Your task to perform on an android device: Add usb-a to usb-b to the cart on amazon, then select checkout. Image 0: 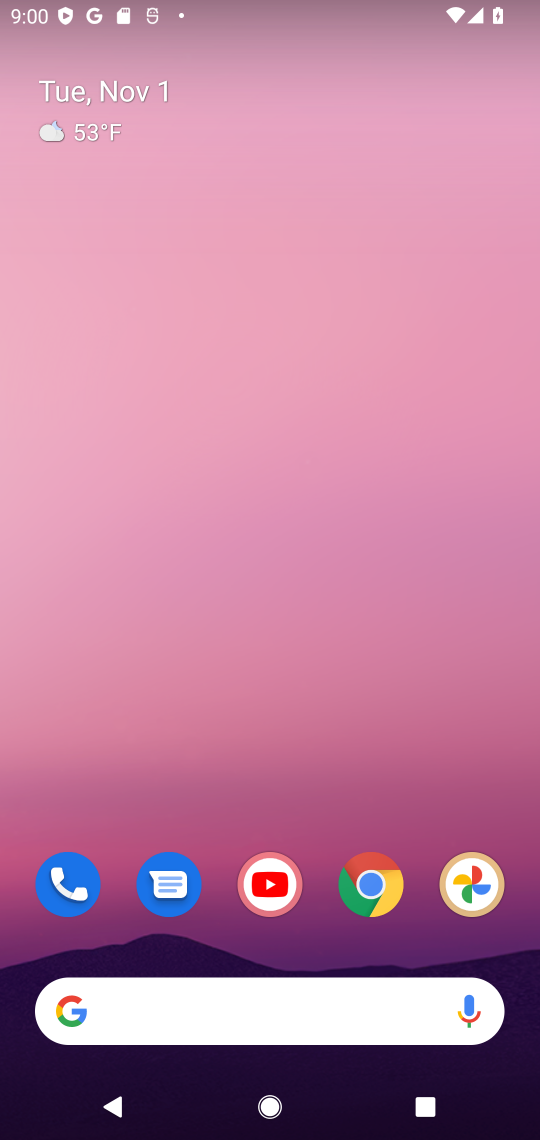
Step 0: click (359, 902)
Your task to perform on an android device: Add usb-a to usb-b to the cart on amazon, then select checkout. Image 1: 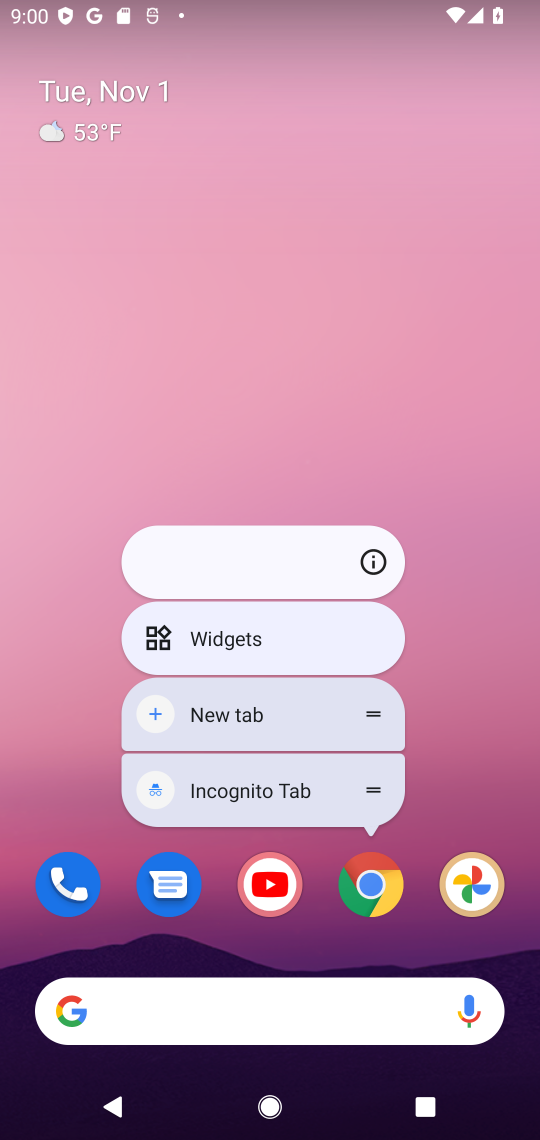
Step 1: click (381, 889)
Your task to perform on an android device: Add usb-a to usb-b to the cart on amazon, then select checkout. Image 2: 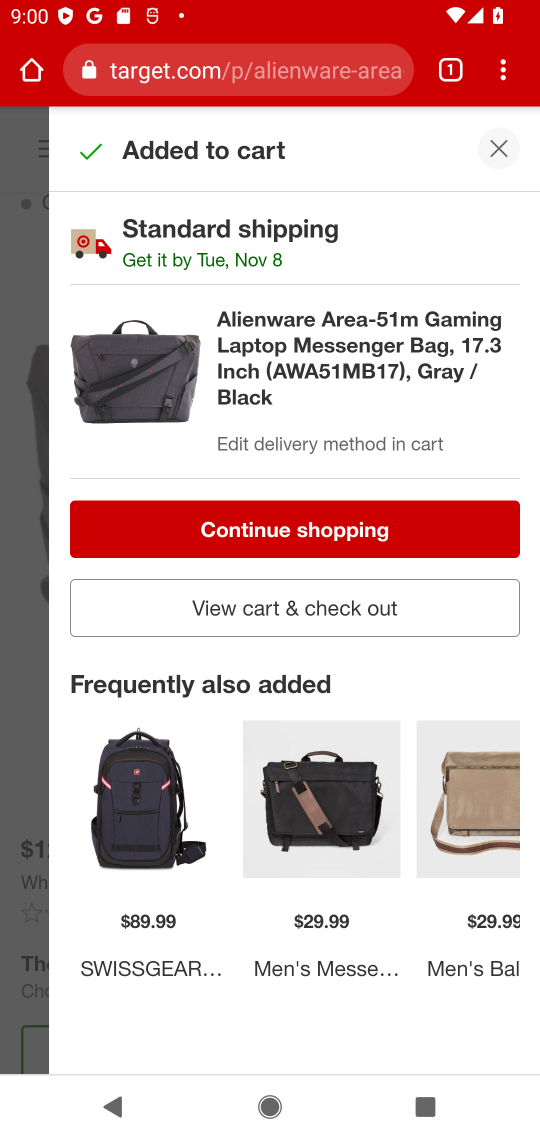
Step 2: click (307, 62)
Your task to perform on an android device: Add usb-a to usb-b to the cart on amazon, then select checkout. Image 3: 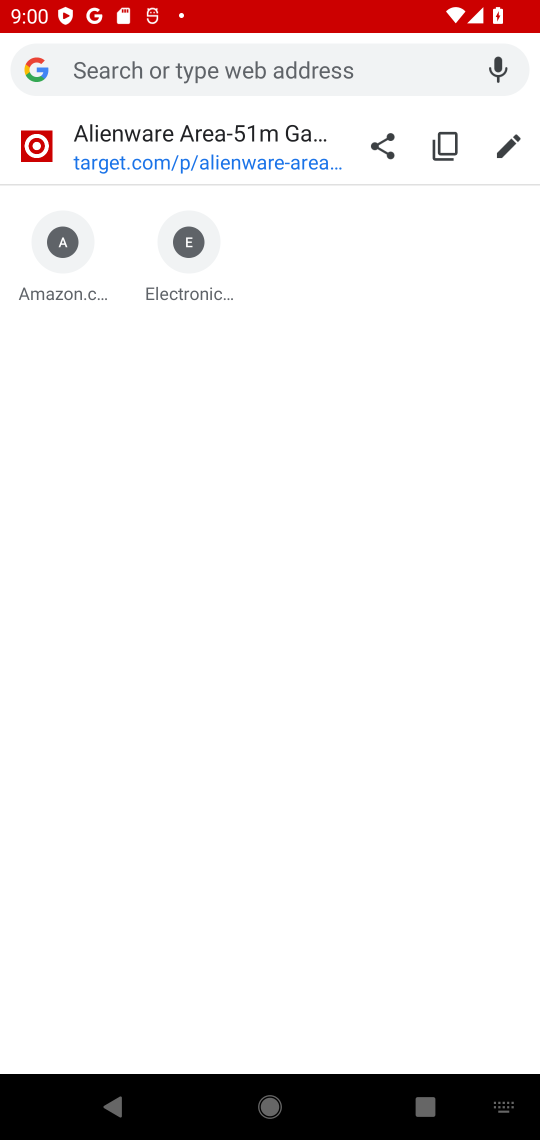
Step 3: type "amazon"
Your task to perform on an android device: Add usb-a to usb-b to the cart on amazon, then select checkout. Image 4: 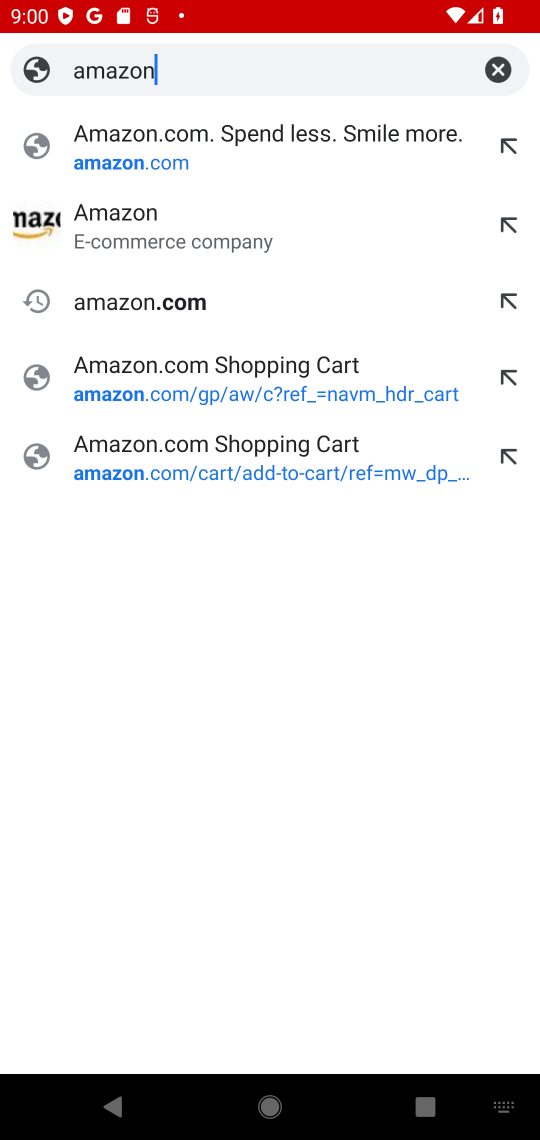
Step 4: click (135, 287)
Your task to perform on an android device: Add usb-a to usb-b to the cart on amazon, then select checkout. Image 5: 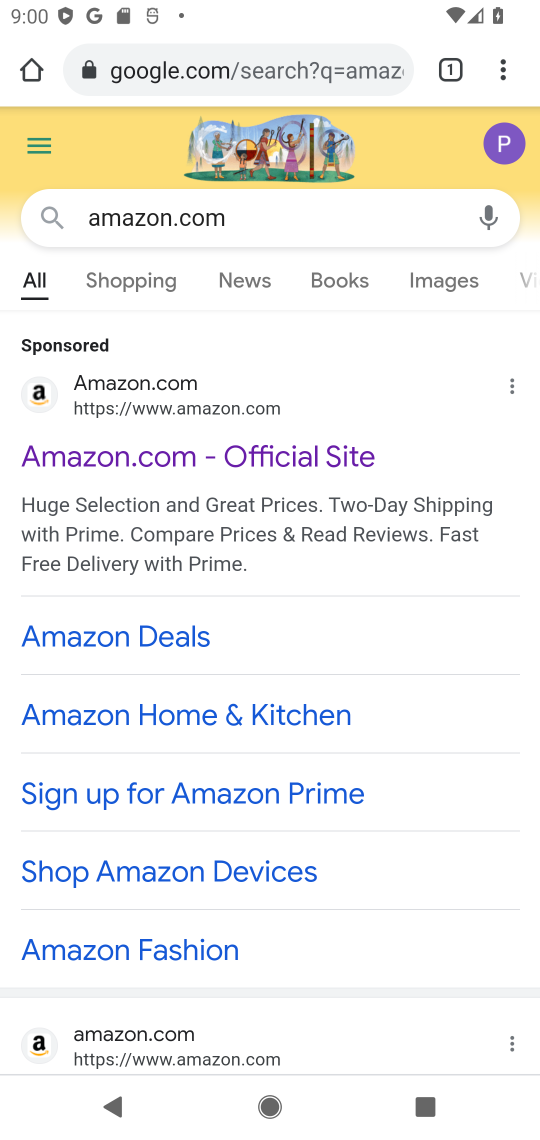
Step 5: click (138, 450)
Your task to perform on an android device: Add usb-a to usb-b to the cart on amazon, then select checkout. Image 6: 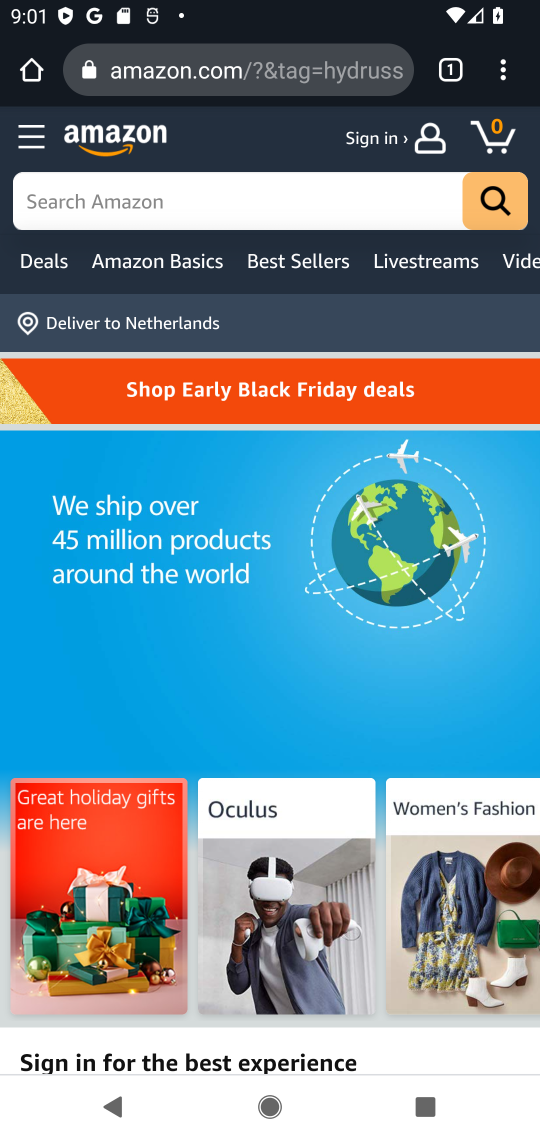
Step 6: click (272, 196)
Your task to perform on an android device: Add usb-a to usb-b to the cart on amazon, then select checkout. Image 7: 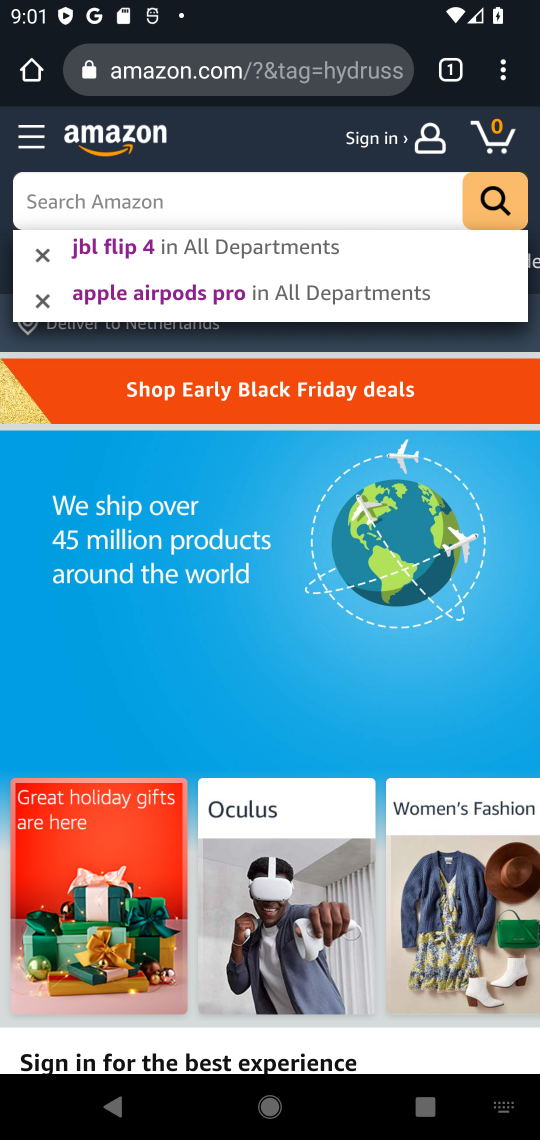
Step 7: press enter
Your task to perform on an android device: Add usb-a to usb-b to the cart on amazon, then select checkout. Image 8: 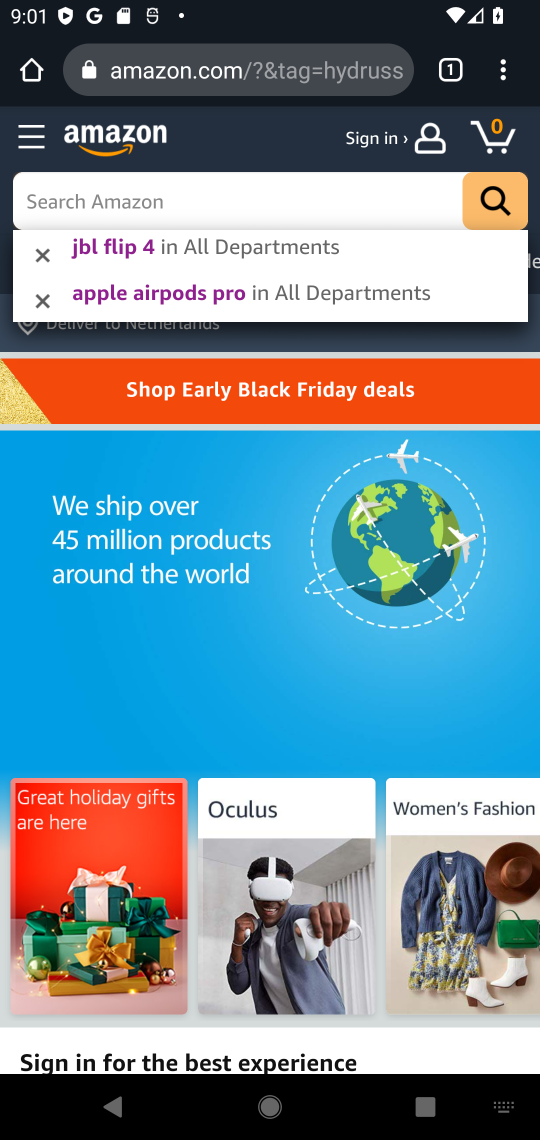
Step 8: type "usb-a to usb-b"
Your task to perform on an android device: Add usb-a to usb-b to the cart on amazon, then select checkout. Image 9: 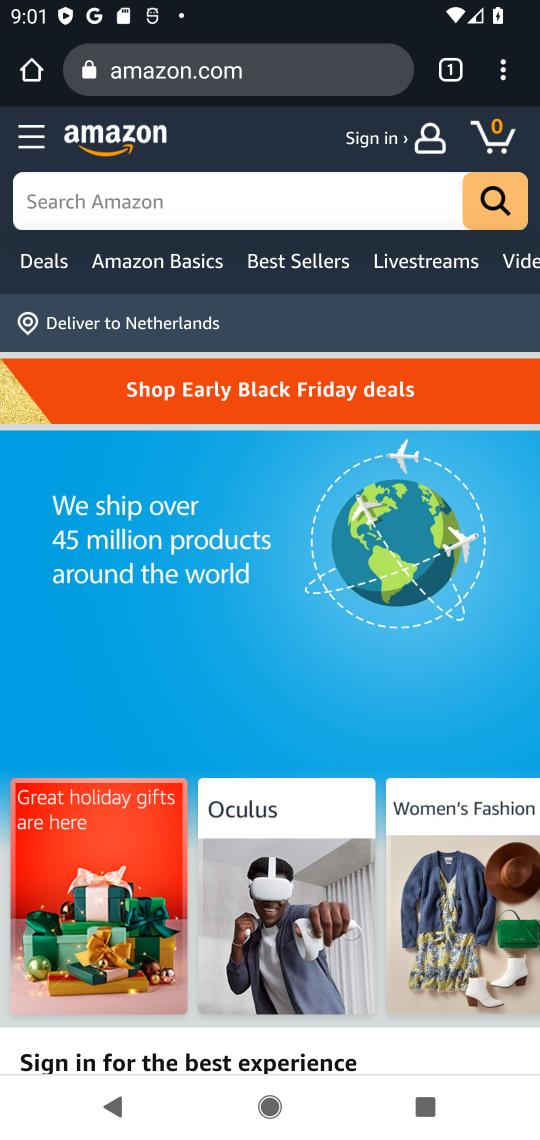
Step 9: click (339, 201)
Your task to perform on an android device: Add usb-a to usb-b to the cart on amazon, then select checkout. Image 10: 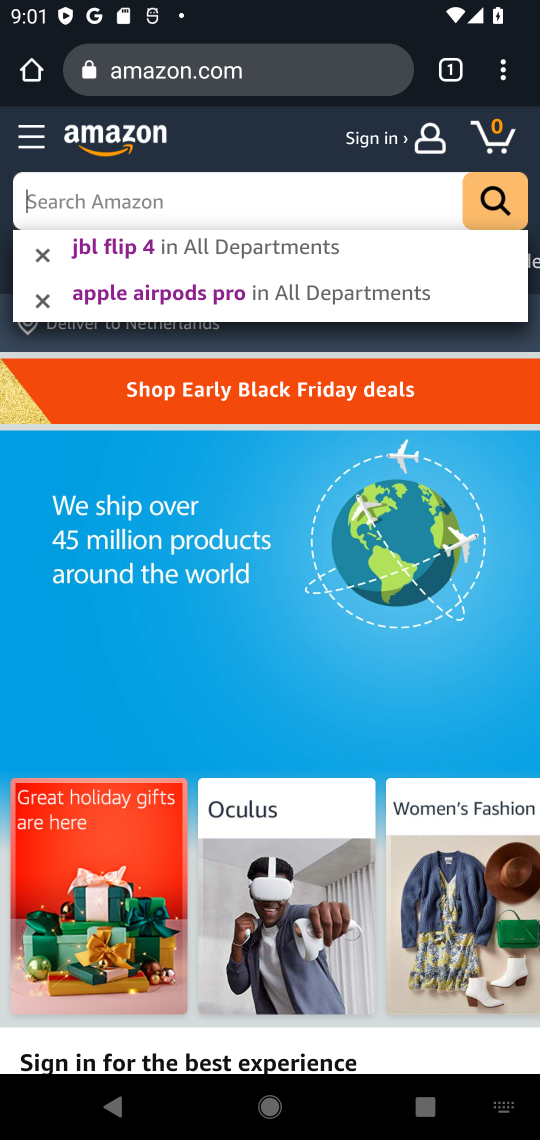
Step 10: press enter
Your task to perform on an android device: Add usb-a to usb-b to the cart on amazon, then select checkout. Image 11: 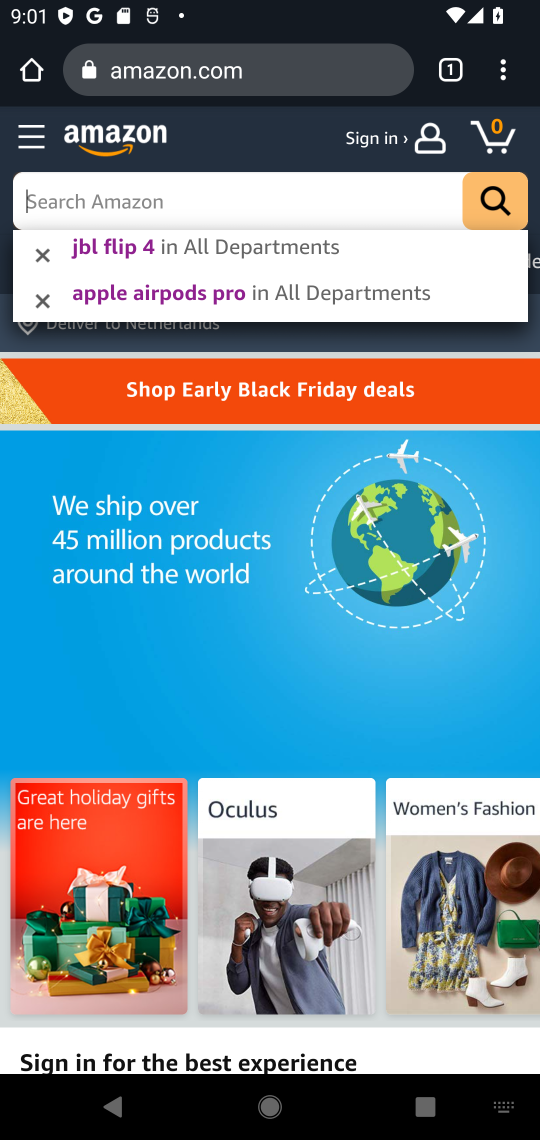
Step 11: type "usb-a to usb-b"
Your task to perform on an android device: Add usb-a to usb-b to the cart on amazon, then select checkout. Image 12: 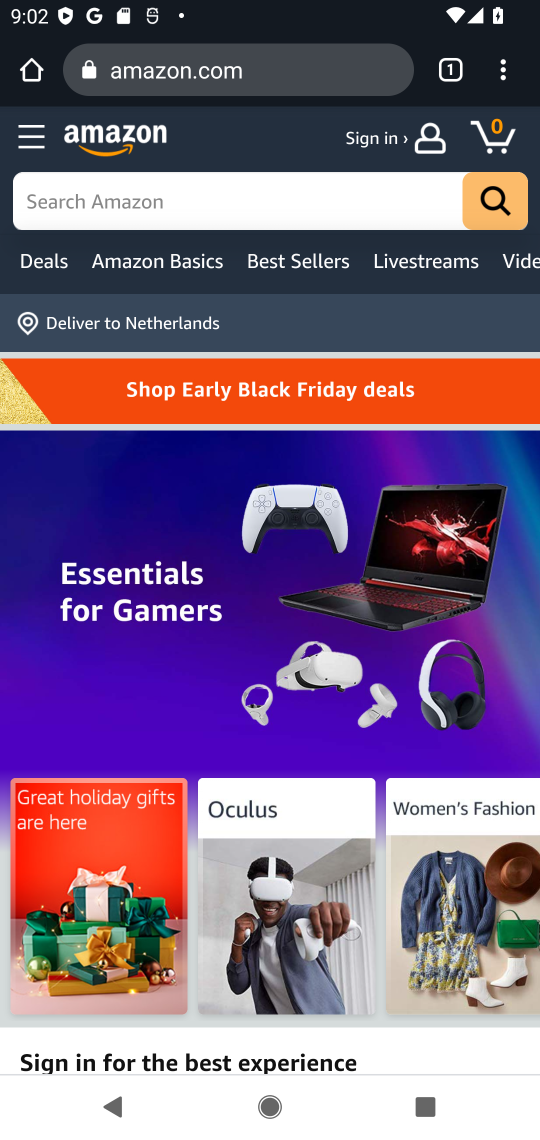
Step 12: click (380, 215)
Your task to perform on an android device: Add usb-a to usb-b to the cart on amazon, then select checkout. Image 13: 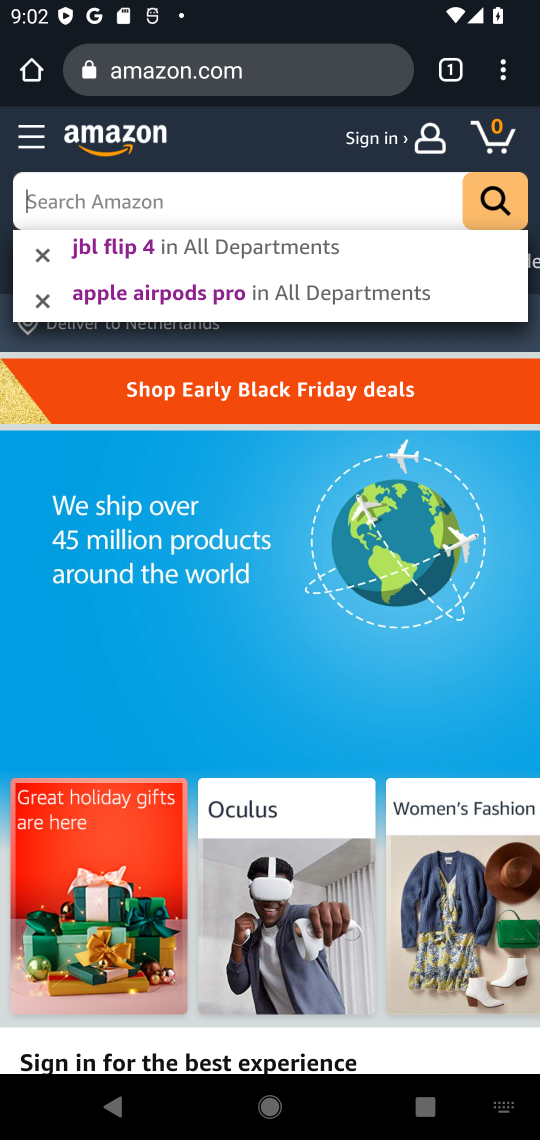
Step 13: type "usb-a to usb-b"
Your task to perform on an android device: Add usb-a to usb-b to the cart on amazon, then select checkout. Image 14: 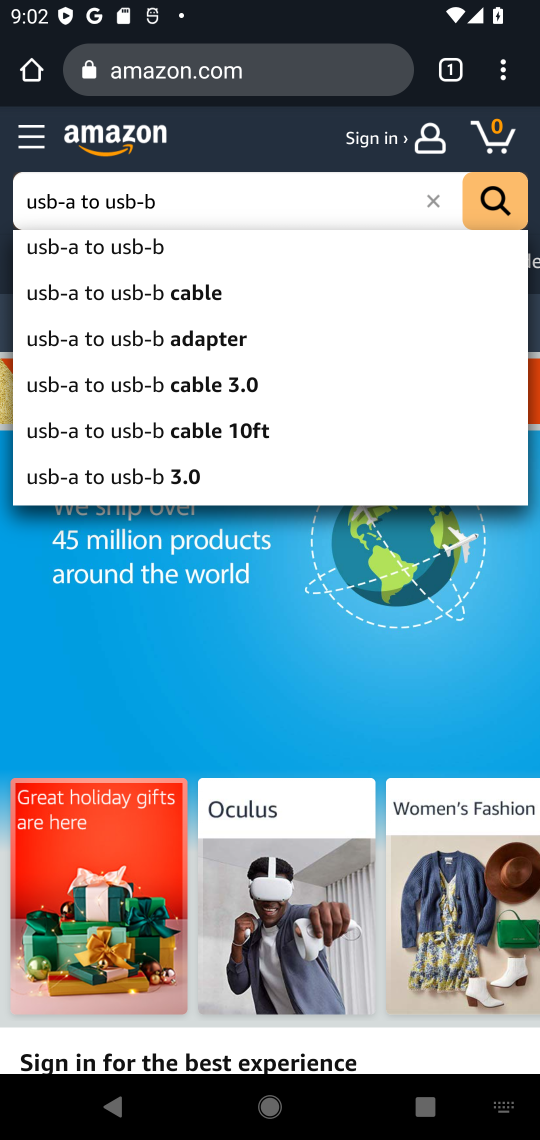
Step 14: click (110, 244)
Your task to perform on an android device: Add usb-a to usb-b to the cart on amazon, then select checkout. Image 15: 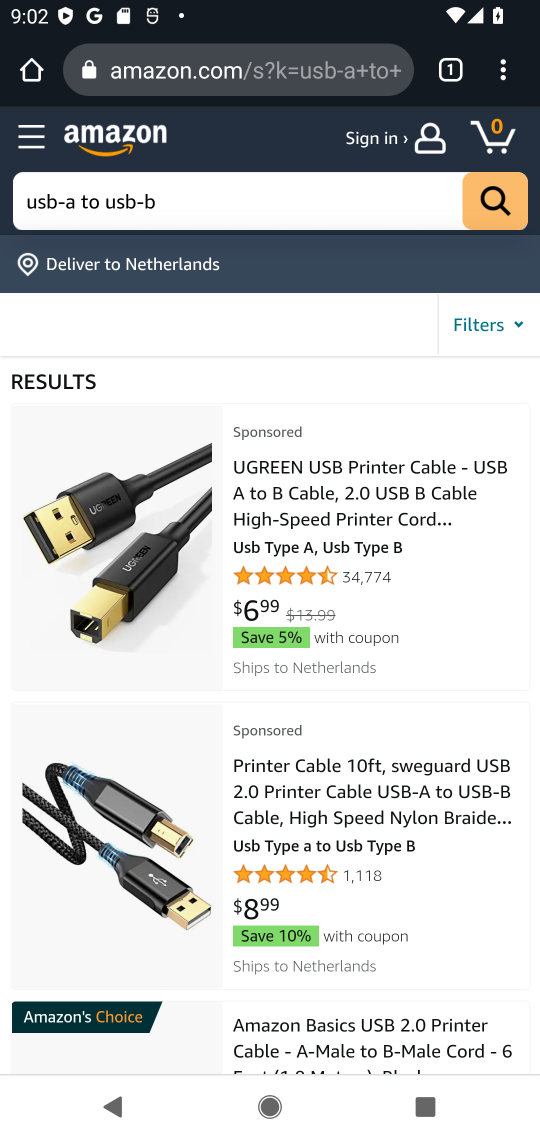
Step 15: click (139, 557)
Your task to perform on an android device: Add usb-a to usb-b to the cart on amazon, then select checkout. Image 16: 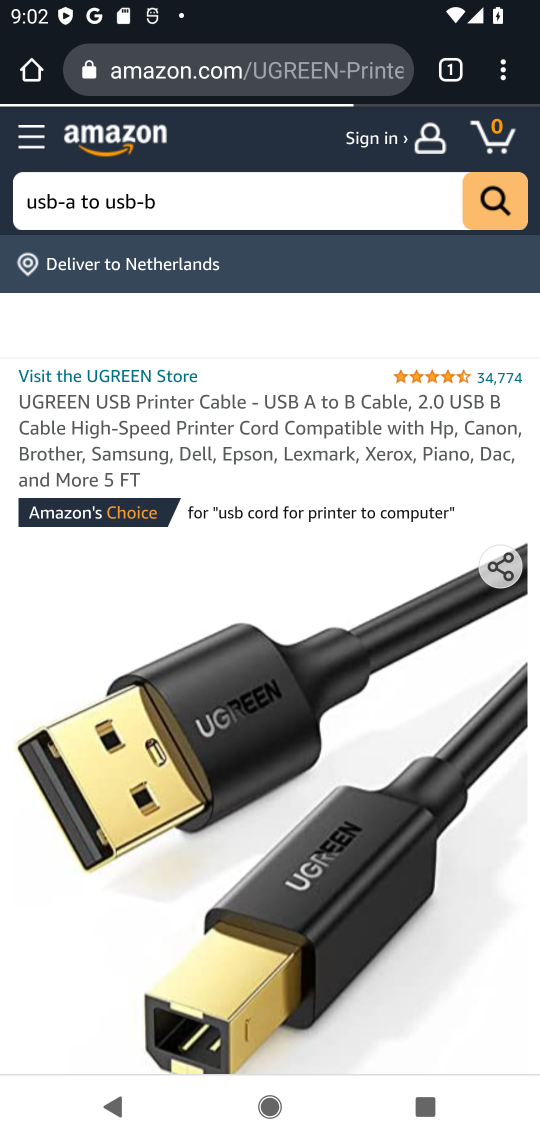
Step 16: drag from (396, 787) to (445, 440)
Your task to perform on an android device: Add usb-a to usb-b to the cart on amazon, then select checkout. Image 17: 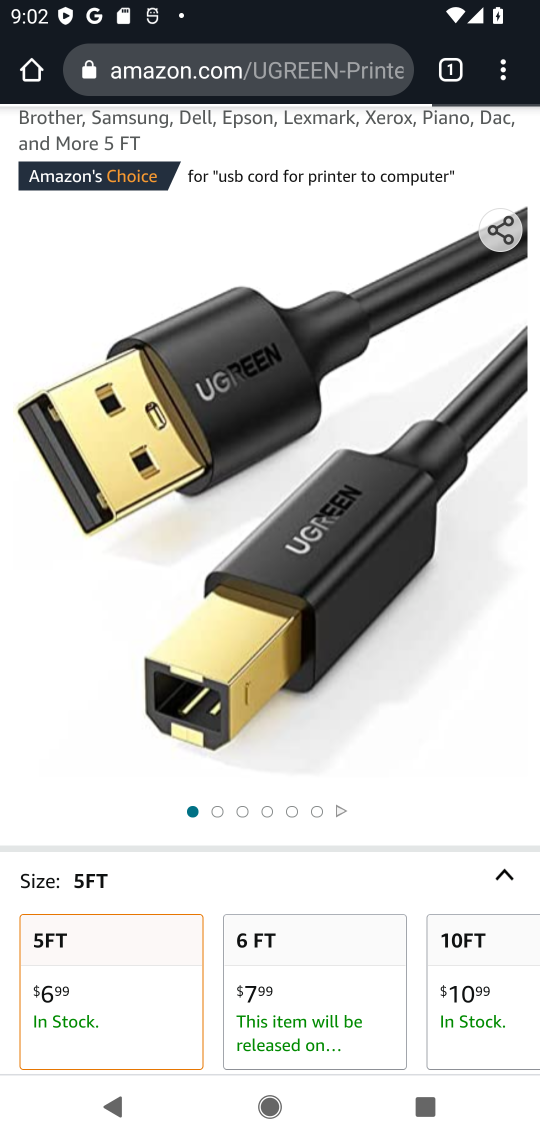
Step 17: drag from (369, 773) to (420, 410)
Your task to perform on an android device: Add usb-a to usb-b to the cart on amazon, then select checkout. Image 18: 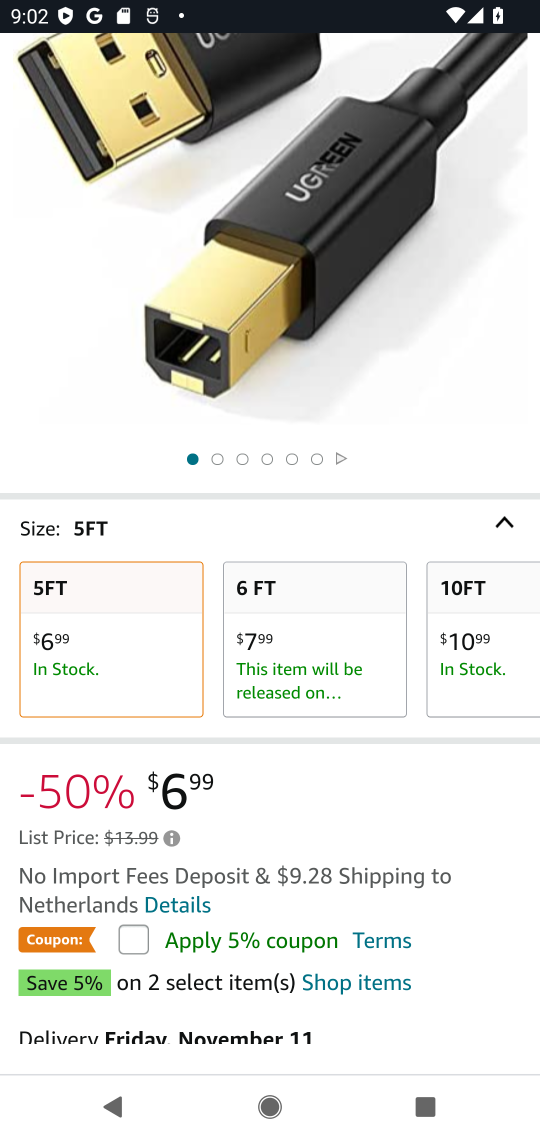
Step 18: drag from (373, 777) to (414, 420)
Your task to perform on an android device: Add usb-a to usb-b to the cart on amazon, then select checkout. Image 19: 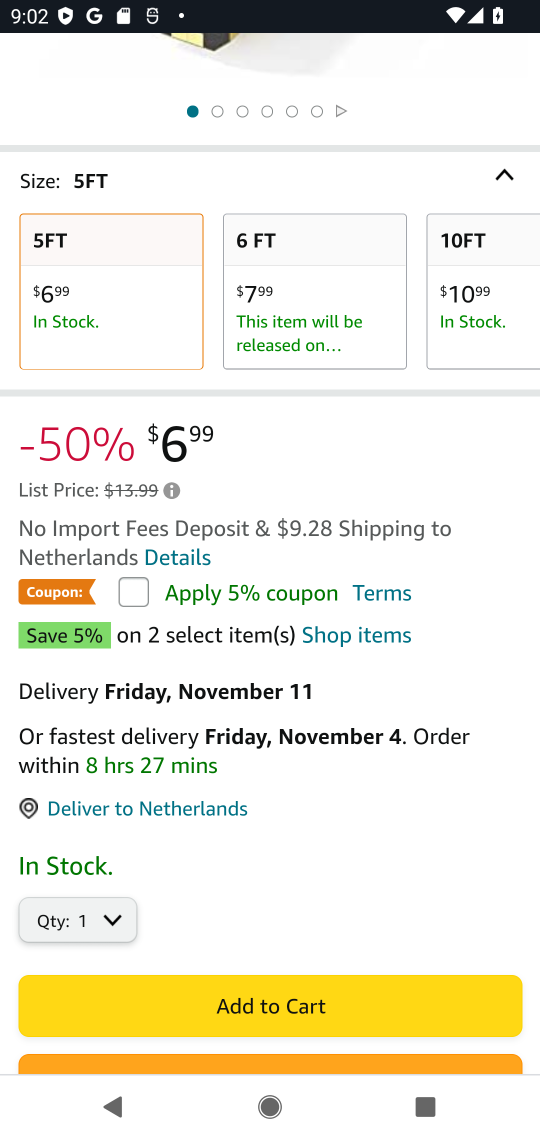
Step 19: click (289, 994)
Your task to perform on an android device: Add usb-a to usb-b to the cart on amazon, then select checkout. Image 20: 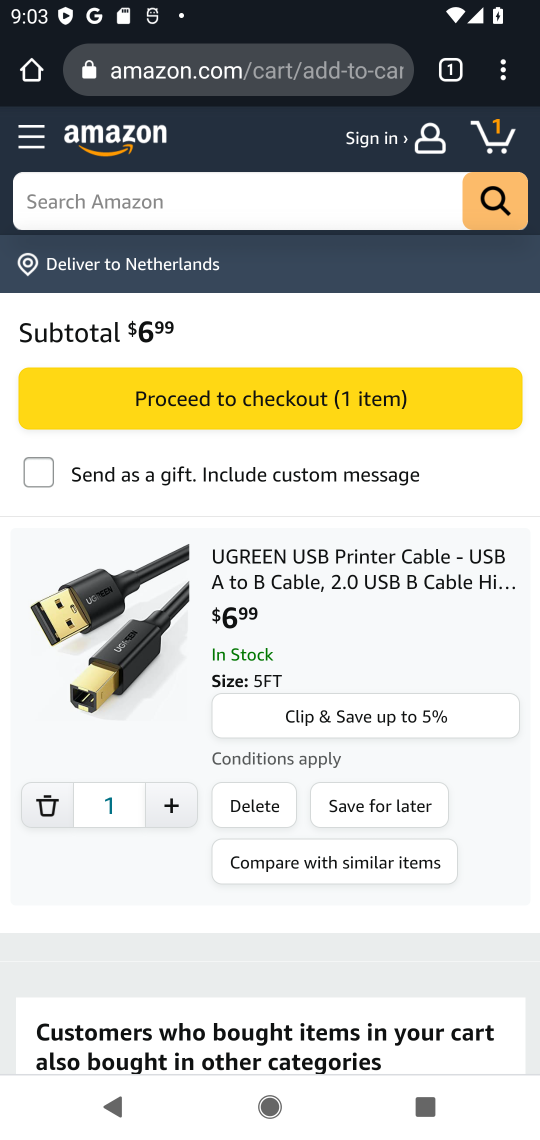
Step 20: drag from (369, 891) to (435, 522)
Your task to perform on an android device: Add usb-a to usb-b to the cart on amazon, then select checkout. Image 21: 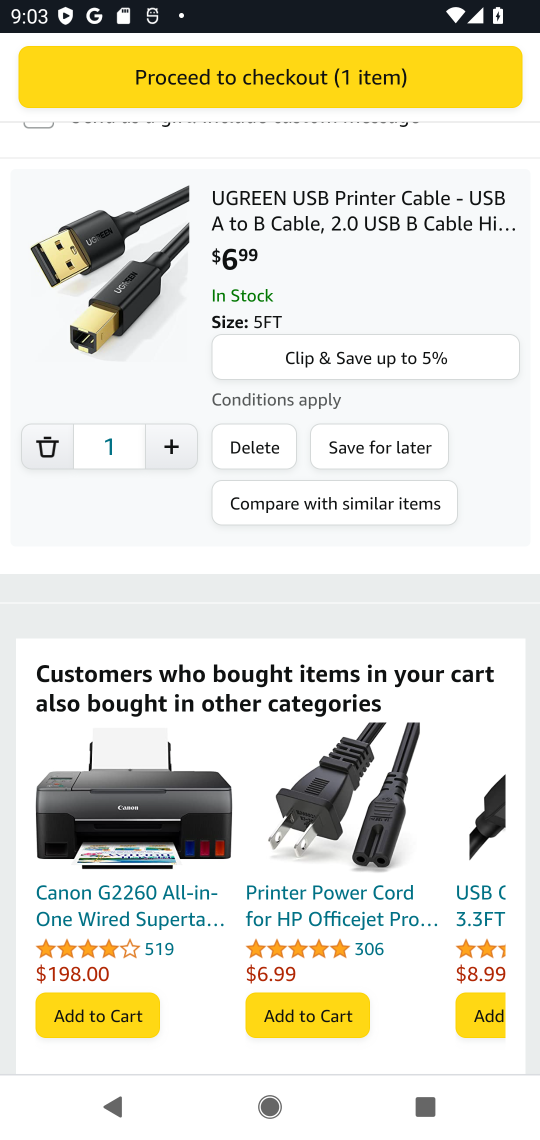
Step 21: drag from (379, 932) to (477, 390)
Your task to perform on an android device: Add usb-a to usb-b to the cart on amazon, then select checkout. Image 22: 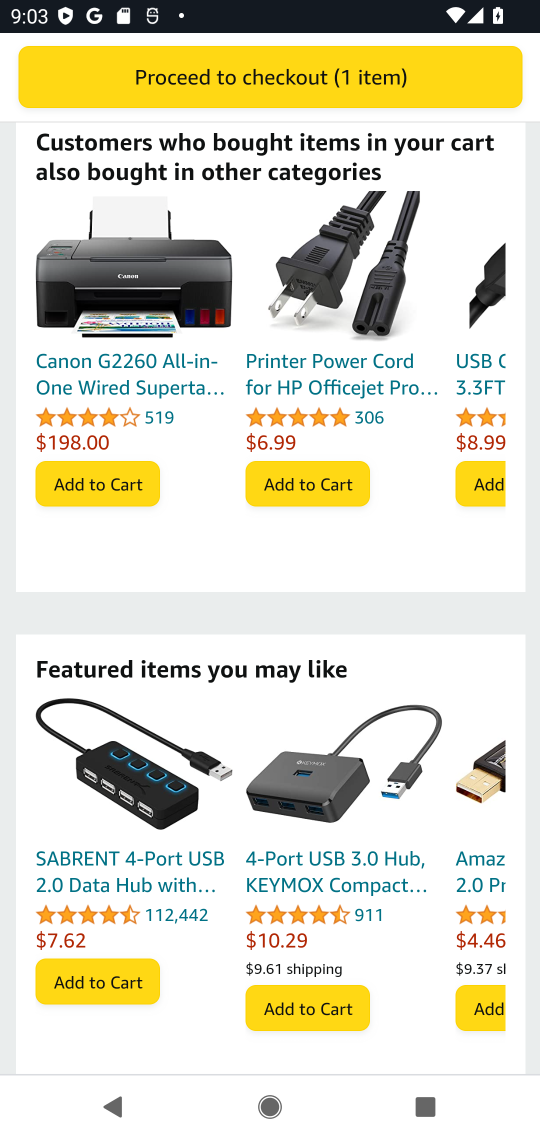
Step 22: drag from (454, 114) to (438, 663)
Your task to perform on an android device: Add usb-a to usb-b to the cart on amazon, then select checkout. Image 23: 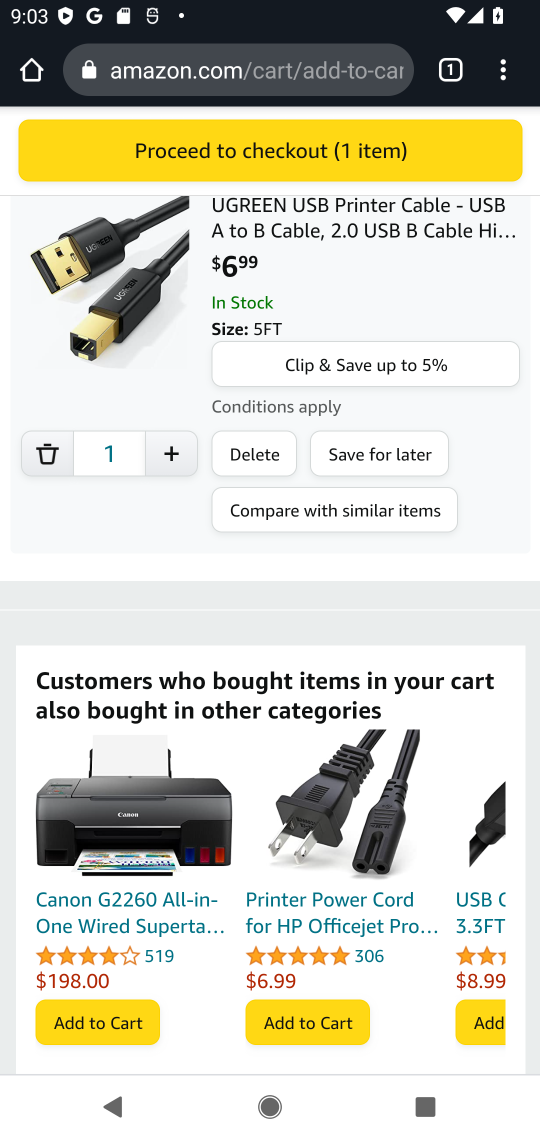
Step 23: drag from (465, 261) to (403, 702)
Your task to perform on an android device: Add usb-a to usb-b to the cart on amazon, then select checkout. Image 24: 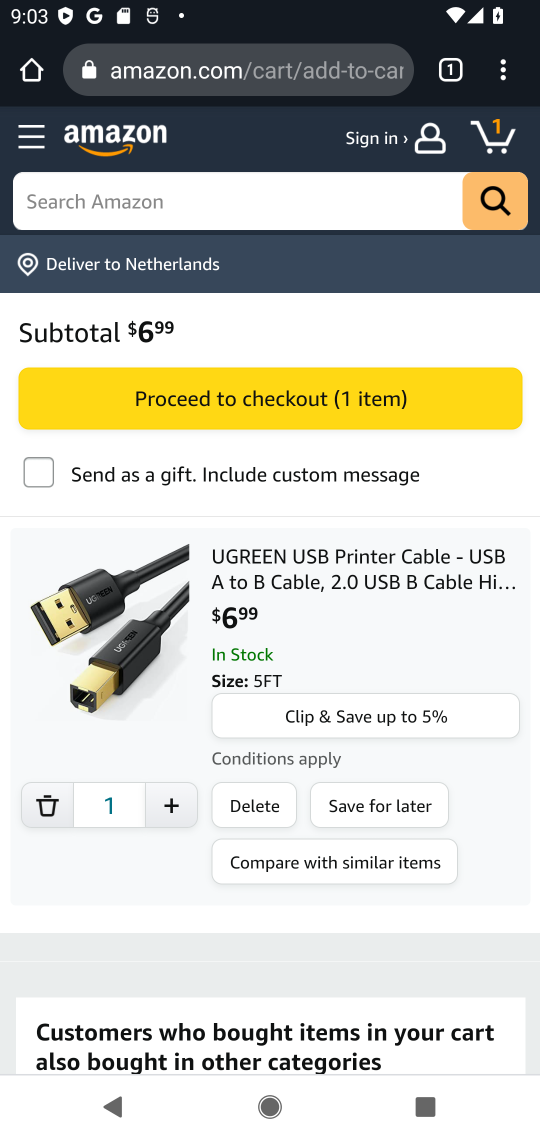
Step 24: click (415, 146)
Your task to perform on an android device: Add usb-a to usb-b to the cart on amazon, then select checkout. Image 25: 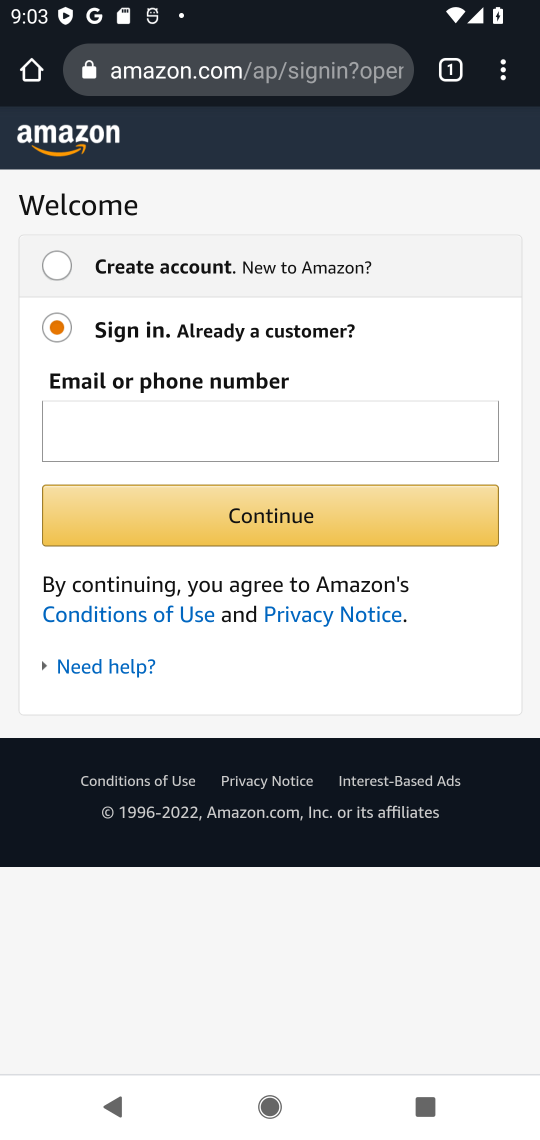
Step 25: press back button
Your task to perform on an android device: Add usb-a to usb-b to the cart on amazon, then select checkout. Image 26: 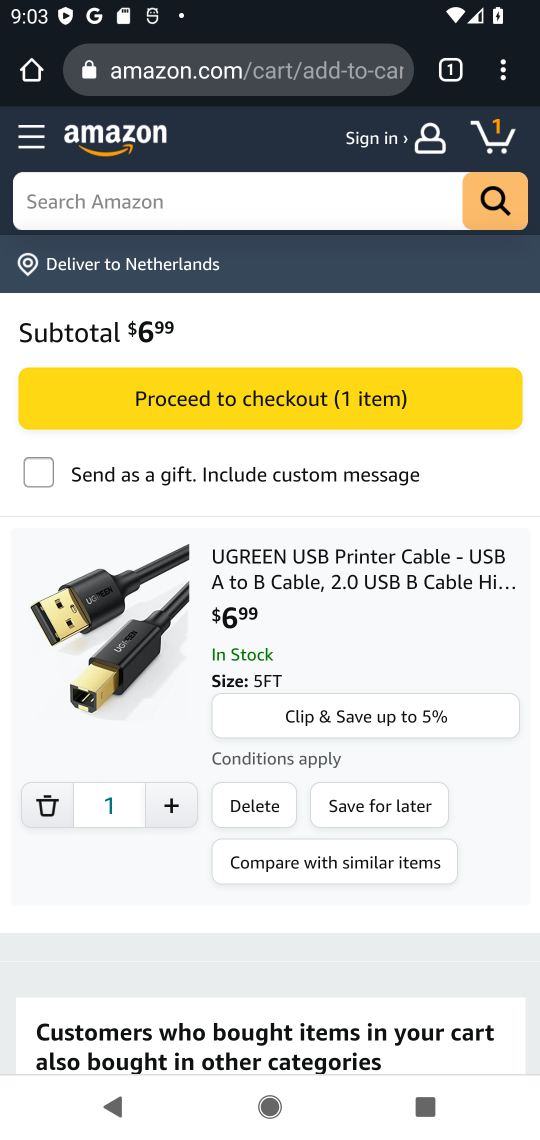
Step 26: drag from (210, 579) to (222, 465)
Your task to perform on an android device: Add usb-a to usb-b to the cart on amazon, then select checkout. Image 27: 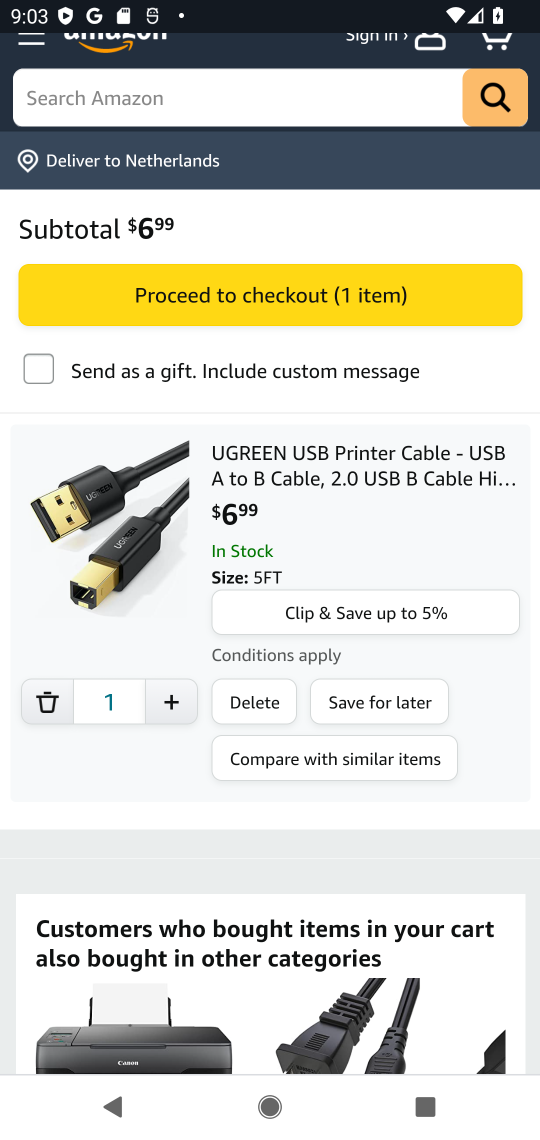
Step 27: click (247, 291)
Your task to perform on an android device: Add usb-a to usb-b to the cart on amazon, then select checkout. Image 28: 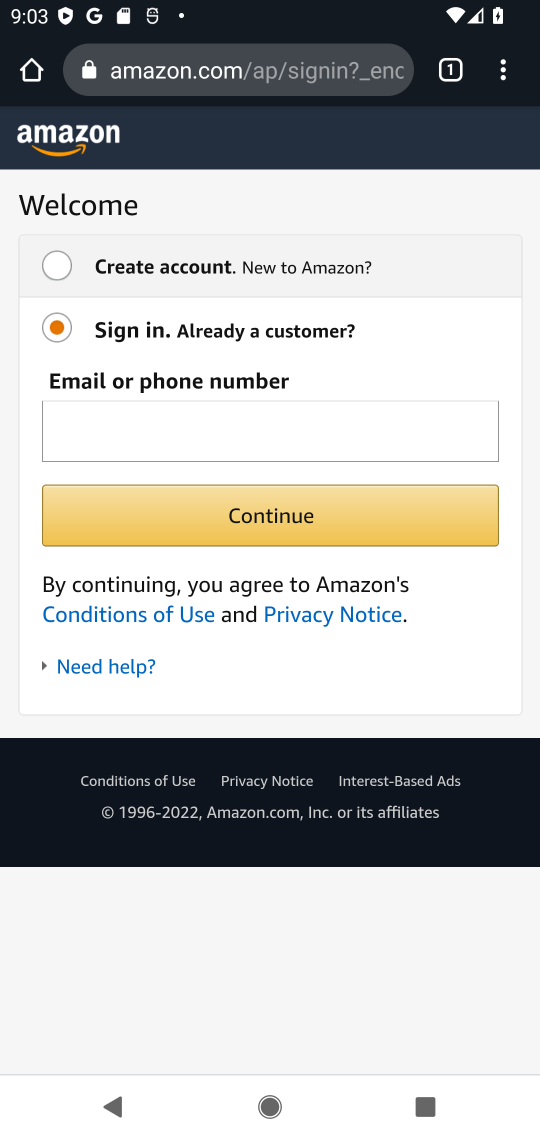
Step 28: task complete